Your task to perform on an android device: delete browsing data in the chrome app Image 0: 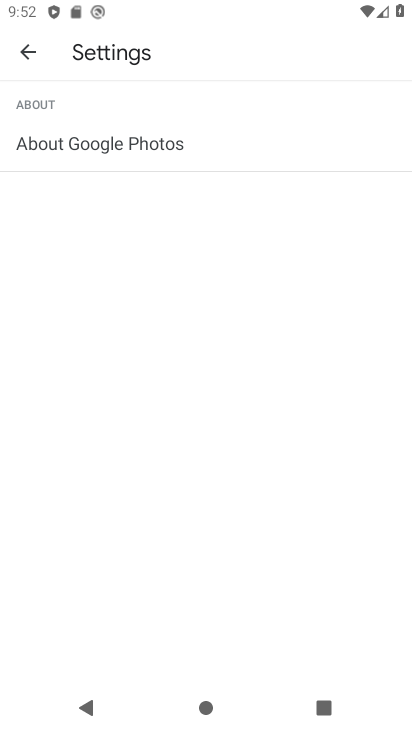
Step 0: press home button
Your task to perform on an android device: delete browsing data in the chrome app Image 1: 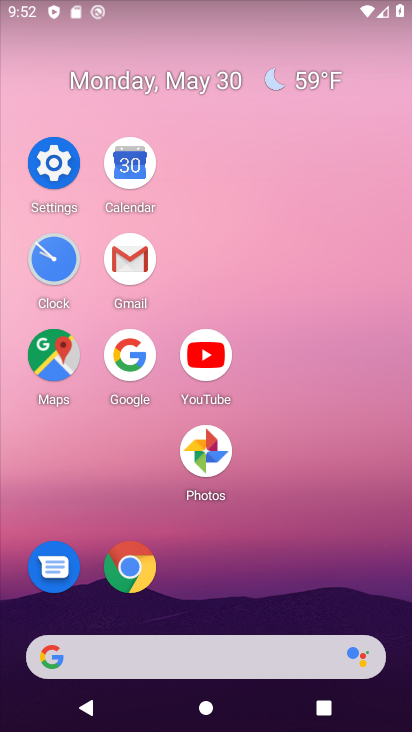
Step 1: click (138, 568)
Your task to perform on an android device: delete browsing data in the chrome app Image 2: 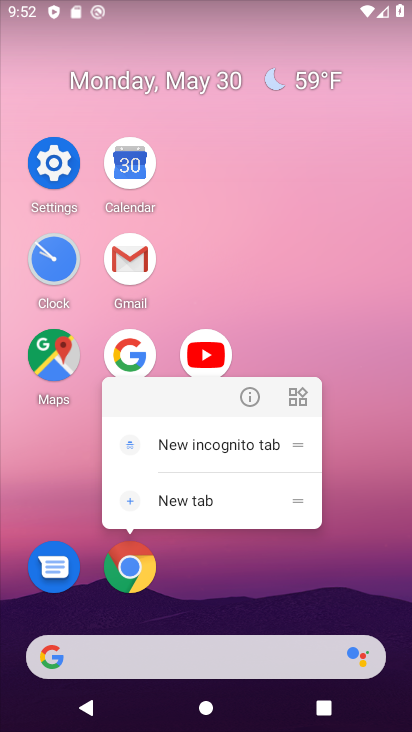
Step 2: click (133, 574)
Your task to perform on an android device: delete browsing data in the chrome app Image 3: 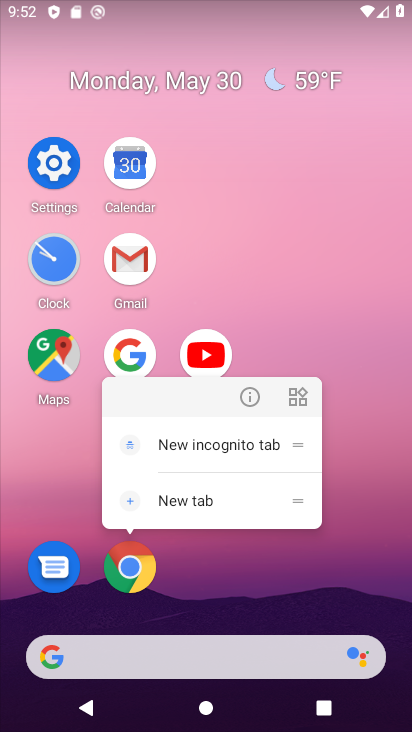
Step 3: click (150, 568)
Your task to perform on an android device: delete browsing data in the chrome app Image 4: 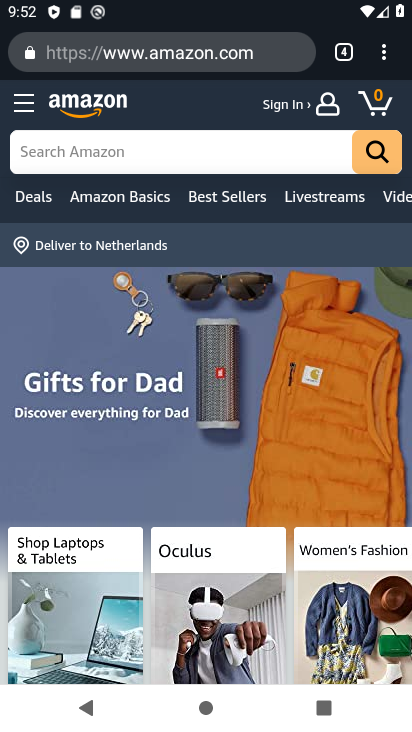
Step 4: click (390, 62)
Your task to perform on an android device: delete browsing data in the chrome app Image 5: 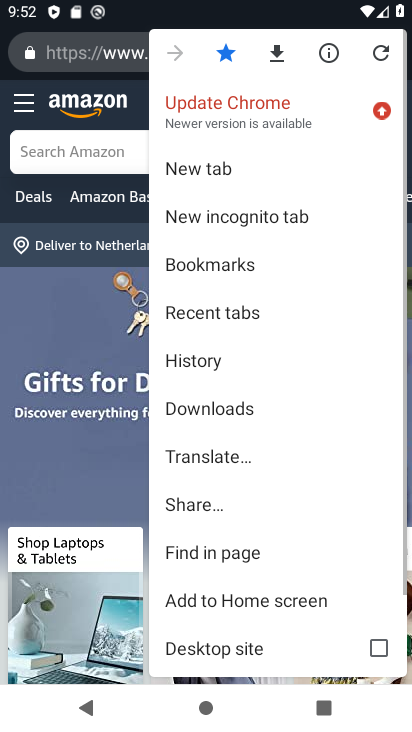
Step 5: drag from (246, 544) to (292, 153)
Your task to perform on an android device: delete browsing data in the chrome app Image 6: 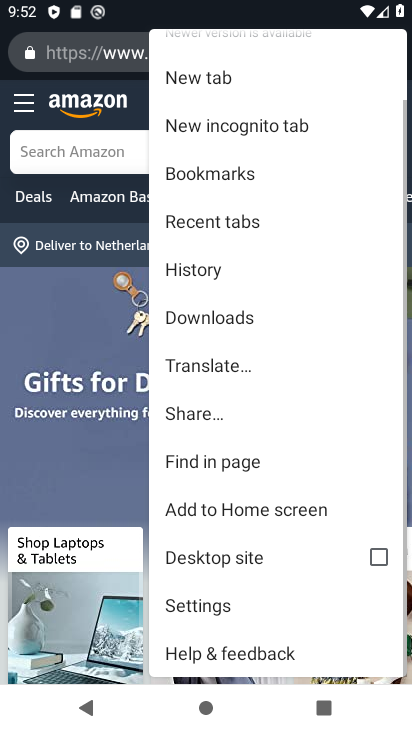
Step 6: click (246, 612)
Your task to perform on an android device: delete browsing data in the chrome app Image 7: 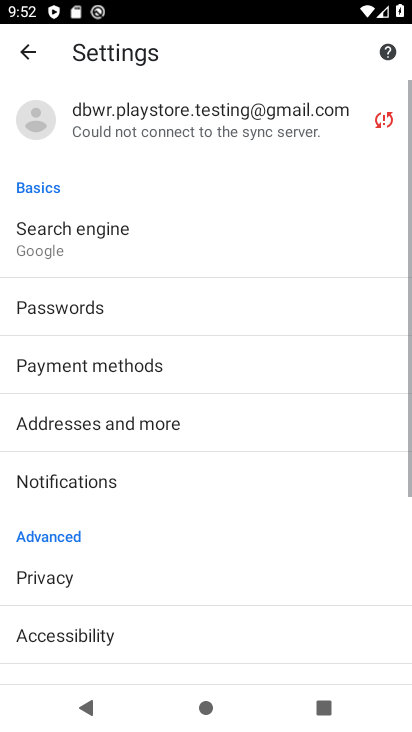
Step 7: drag from (246, 612) to (312, 257)
Your task to perform on an android device: delete browsing data in the chrome app Image 8: 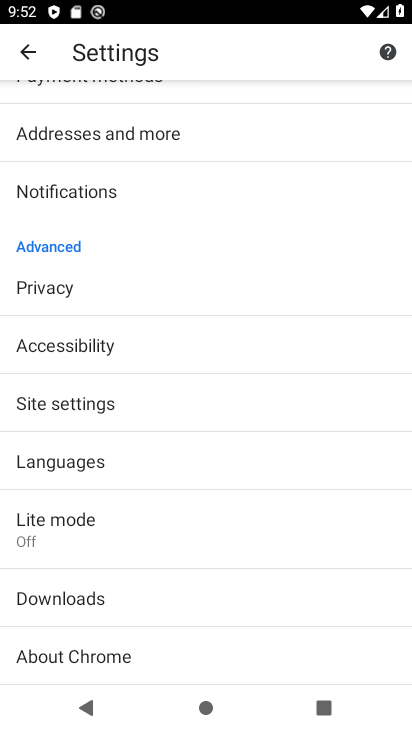
Step 8: drag from (225, 563) to (269, 195)
Your task to perform on an android device: delete browsing data in the chrome app Image 9: 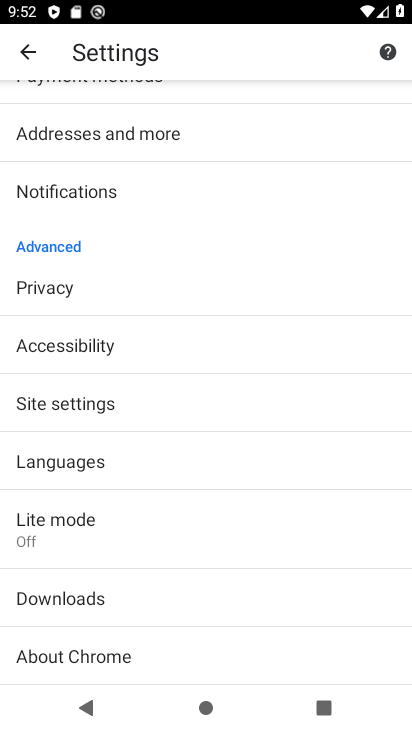
Step 9: click (126, 289)
Your task to perform on an android device: delete browsing data in the chrome app Image 10: 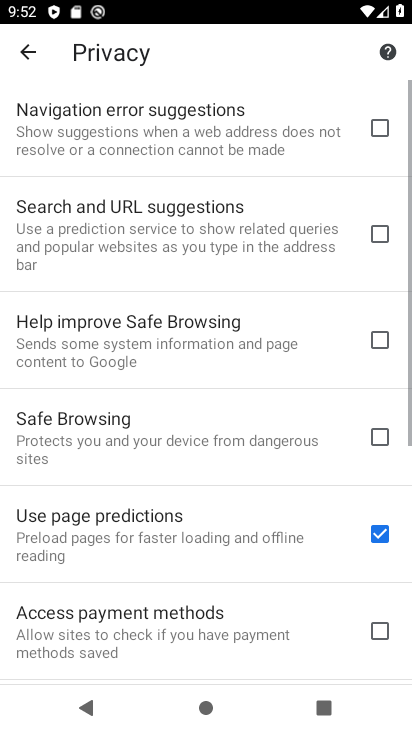
Step 10: drag from (166, 620) to (221, 161)
Your task to perform on an android device: delete browsing data in the chrome app Image 11: 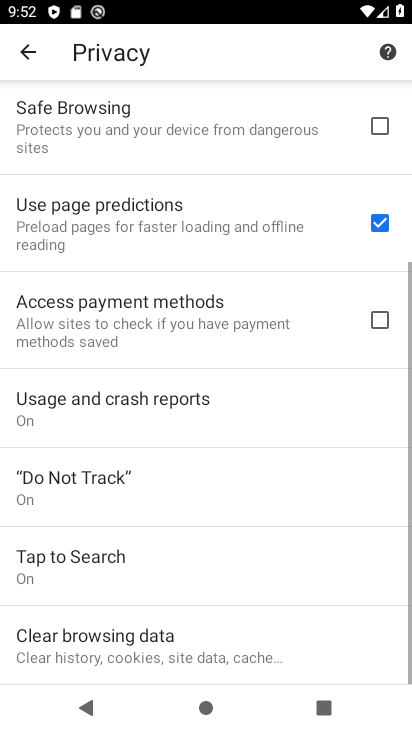
Step 11: drag from (255, 545) to (282, 144)
Your task to perform on an android device: delete browsing data in the chrome app Image 12: 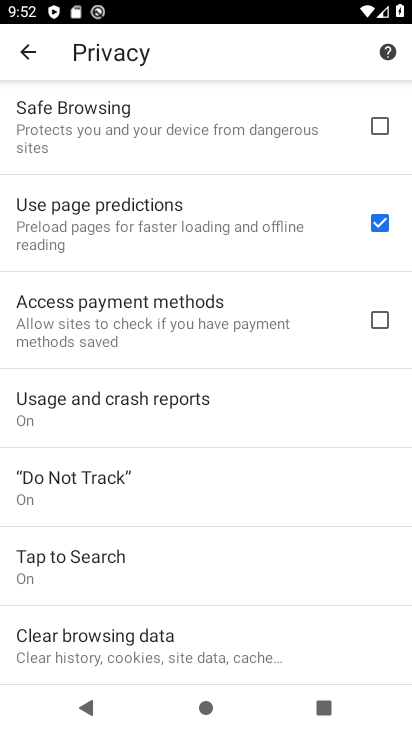
Step 12: click (260, 672)
Your task to perform on an android device: delete browsing data in the chrome app Image 13: 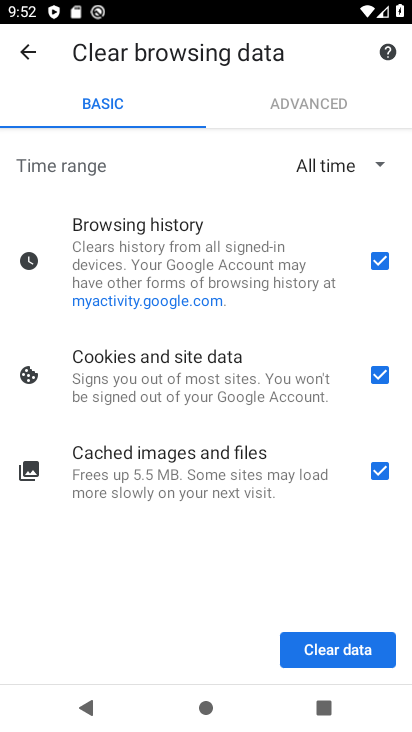
Step 13: click (380, 659)
Your task to perform on an android device: delete browsing data in the chrome app Image 14: 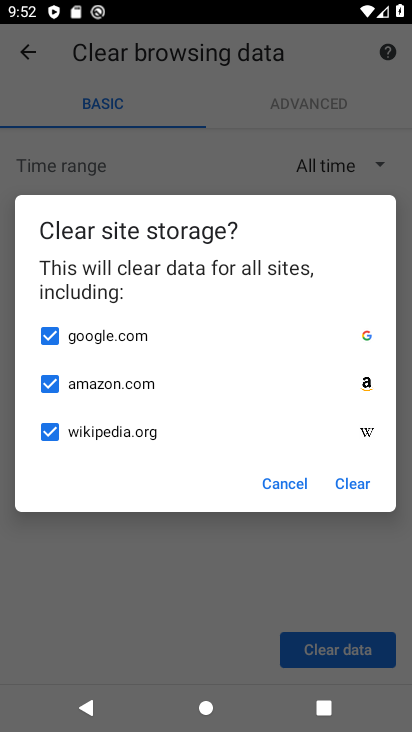
Step 14: click (372, 485)
Your task to perform on an android device: delete browsing data in the chrome app Image 15: 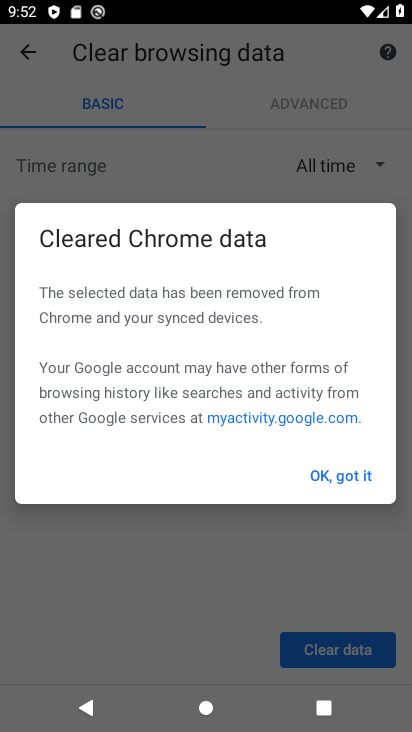
Step 15: click (318, 473)
Your task to perform on an android device: delete browsing data in the chrome app Image 16: 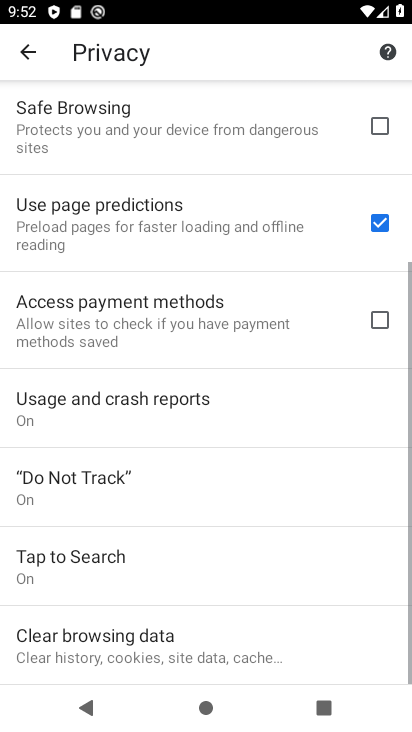
Step 16: task complete